Your task to perform on an android device: find photos in the google photos app Image 0: 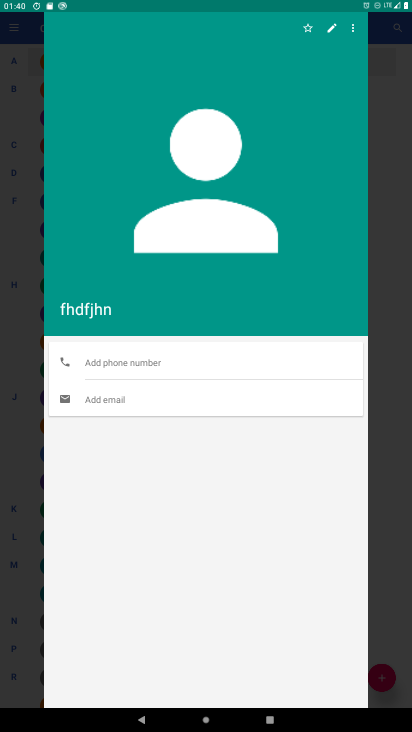
Step 0: press home button
Your task to perform on an android device: find photos in the google photos app Image 1: 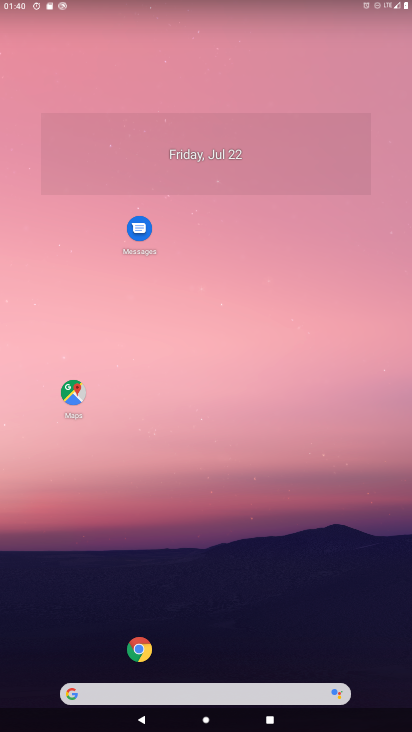
Step 1: drag from (30, 693) to (309, 30)
Your task to perform on an android device: find photos in the google photos app Image 2: 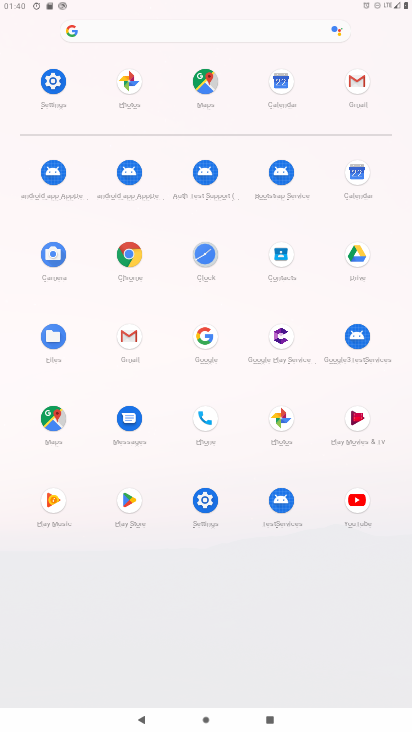
Step 2: click (288, 417)
Your task to perform on an android device: find photos in the google photos app Image 3: 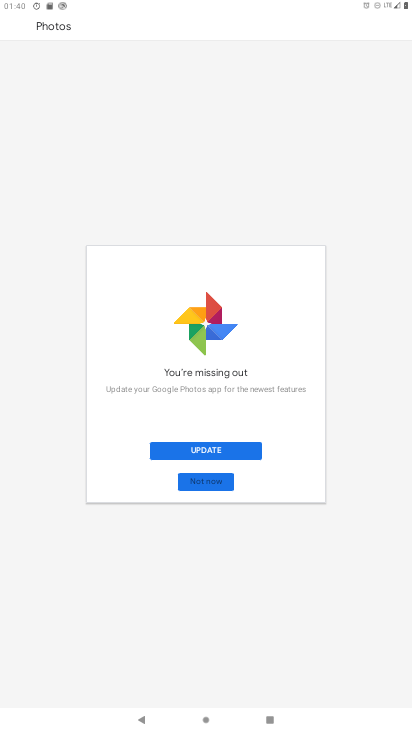
Step 3: click (202, 452)
Your task to perform on an android device: find photos in the google photos app Image 4: 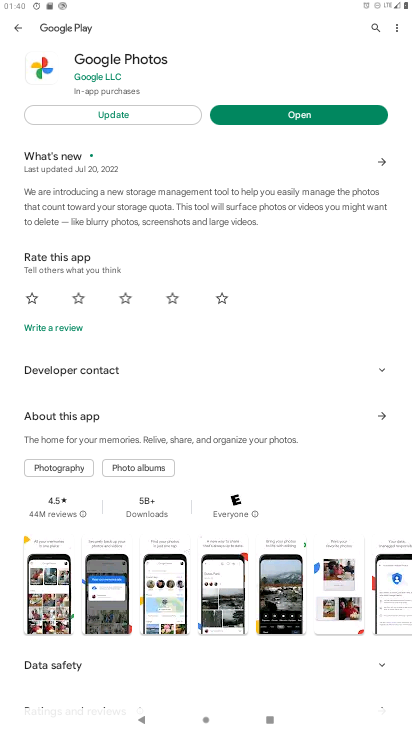
Step 4: click (317, 109)
Your task to perform on an android device: find photos in the google photos app Image 5: 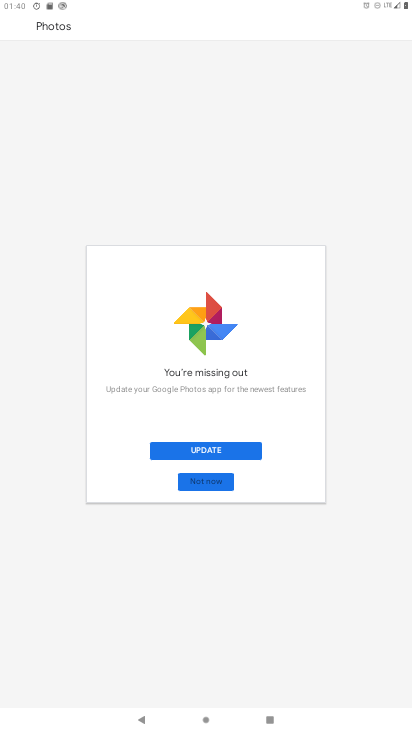
Step 5: task complete